Your task to perform on an android device: turn on bluetooth scan Image 0: 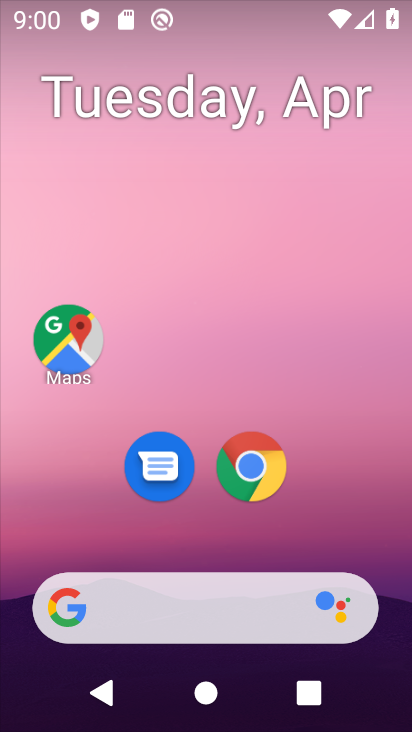
Step 0: drag from (339, 502) to (324, 323)
Your task to perform on an android device: turn on bluetooth scan Image 1: 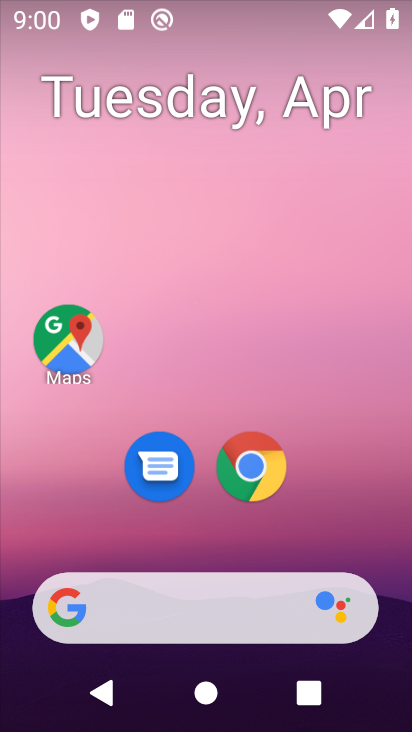
Step 1: drag from (329, 490) to (323, 187)
Your task to perform on an android device: turn on bluetooth scan Image 2: 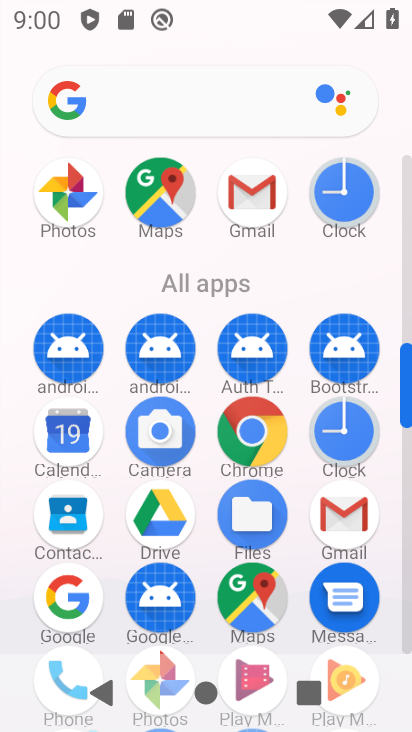
Step 2: click (407, 510)
Your task to perform on an android device: turn on bluetooth scan Image 3: 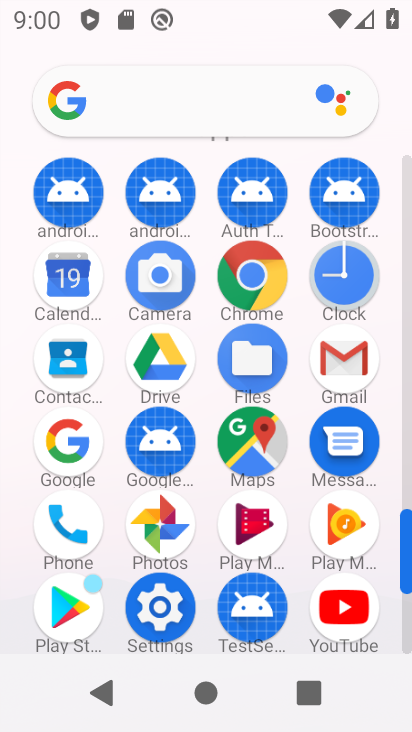
Step 3: click (184, 596)
Your task to perform on an android device: turn on bluetooth scan Image 4: 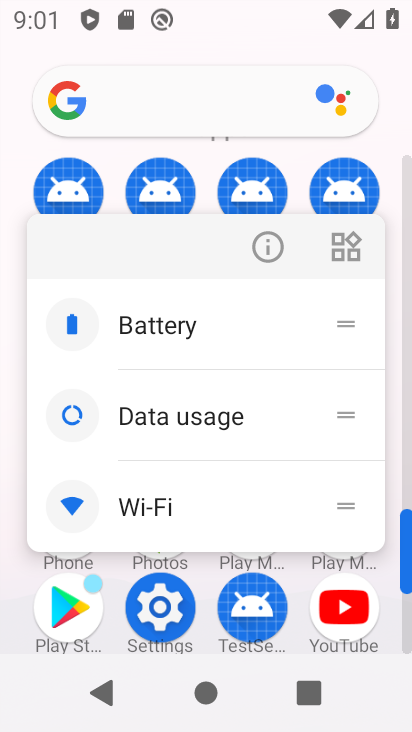
Step 4: click (146, 601)
Your task to perform on an android device: turn on bluetooth scan Image 5: 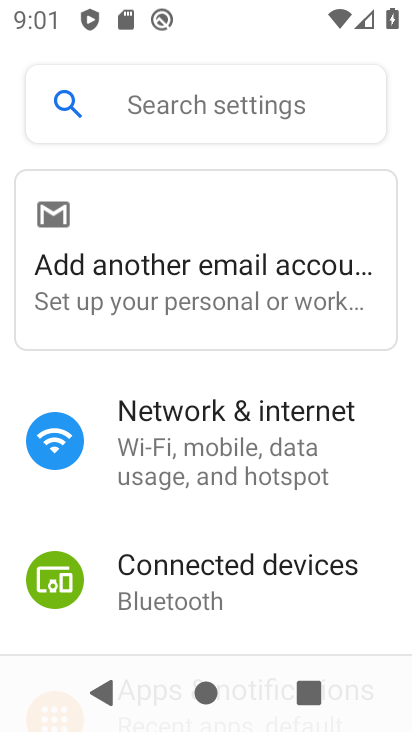
Step 5: drag from (243, 614) to (307, 270)
Your task to perform on an android device: turn on bluetooth scan Image 6: 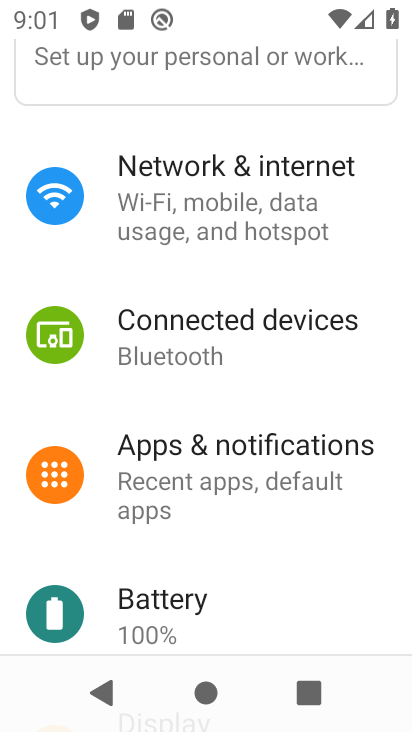
Step 6: drag from (287, 547) to (246, 223)
Your task to perform on an android device: turn on bluetooth scan Image 7: 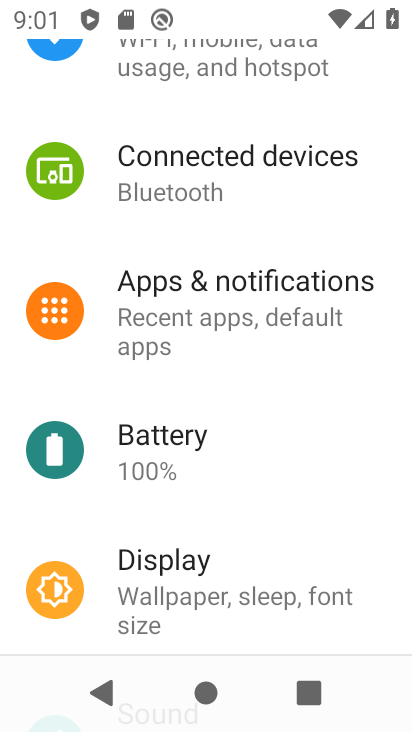
Step 7: drag from (203, 521) to (225, 16)
Your task to perform on an android device: turn on bluetooth scan Image 8: 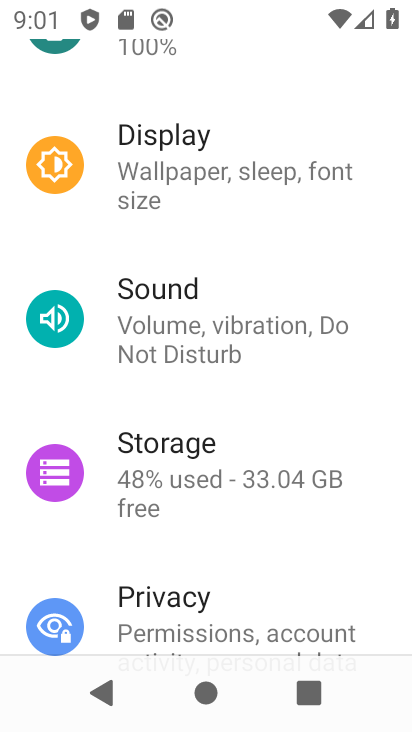
Step 8: drag from (259, 538) to (249, 34)
Your task to perform on an android device: turn on bluetooth scan Image 9: 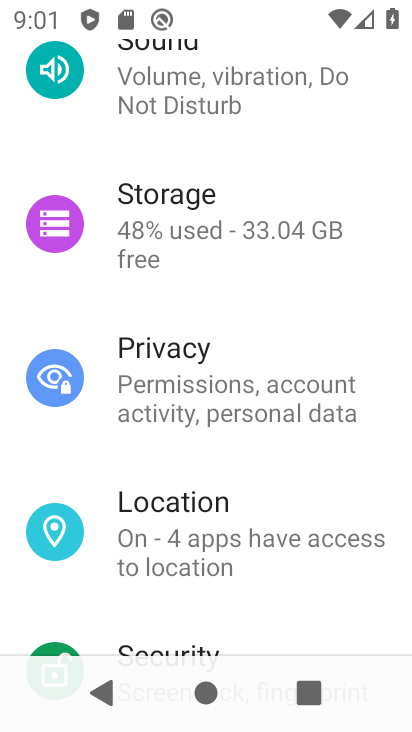
Step 9: click (299, 498)
Your task to perform on an android device: turn on bluetooth scan Image 10: 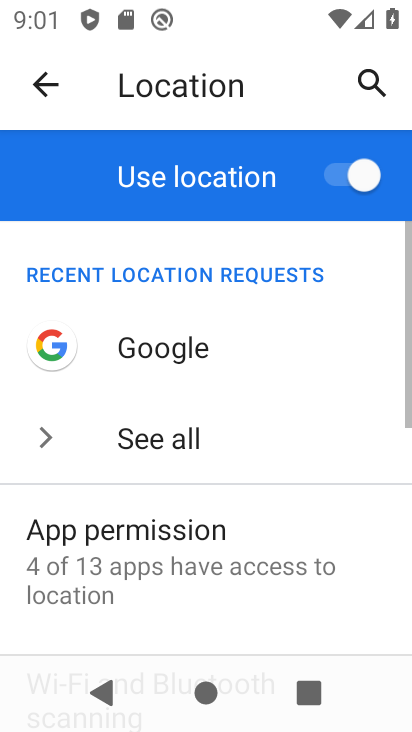
Step 10: drag from (226, 552) to (279, 334)
Your task to perform on an android device: turn on bluetooth scan Image 11: 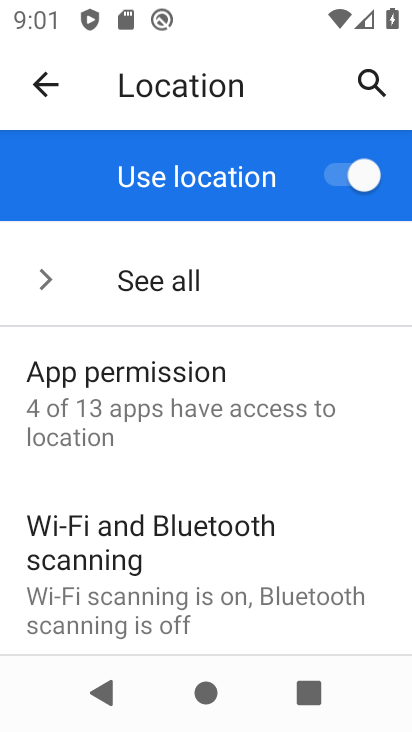
Step 11: click (209, 572)
Your task to perform on an android device: turn on bluetooth scan Image 12: 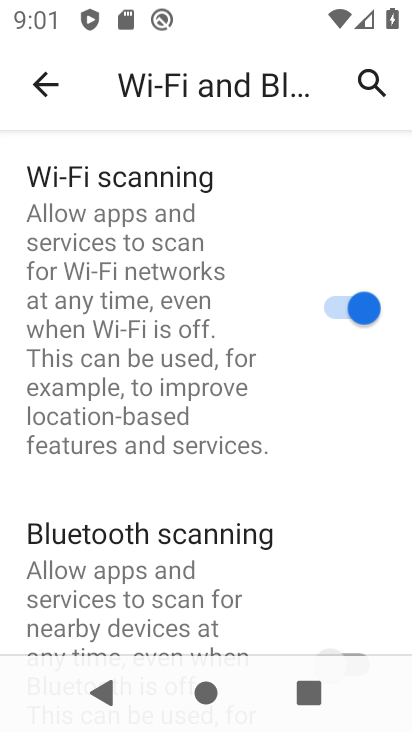
Step 12: click (306, 609)
Your task to perform on an android device: turn on bluetooth scan Image 13: 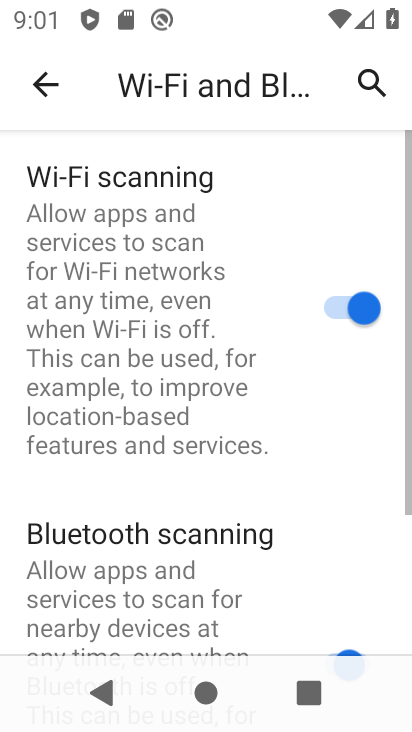
Step 13: task complete